Your task to perform on an android device: Open calendar and show me the third week of next month Image 0: 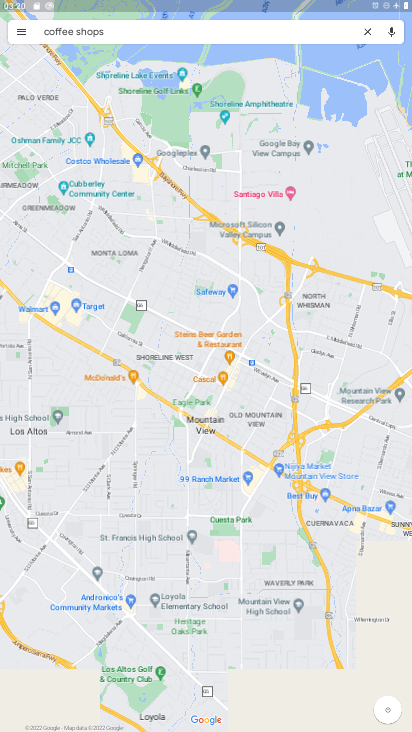
Step 0: press home button
Your task to perform on an android device: Open calendar and show me the third week of next month Image 1: 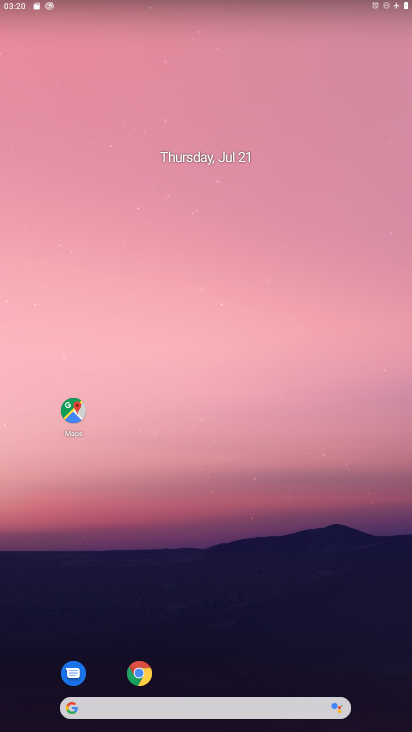
Step 1: drag from (241, 674) to (240, 240)
Your task to perform on an android device: Open calendar and show me the third week of next month Image 2: 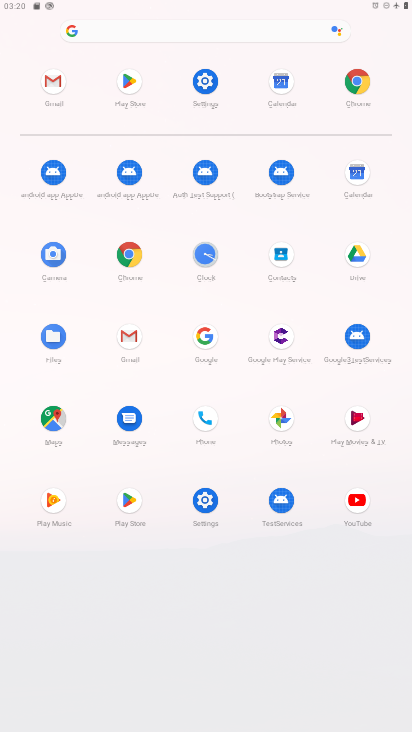
Step 2: click (351, 176)
Your task to perform on an android device: Open calendar and show me the third week of next month Image 3: 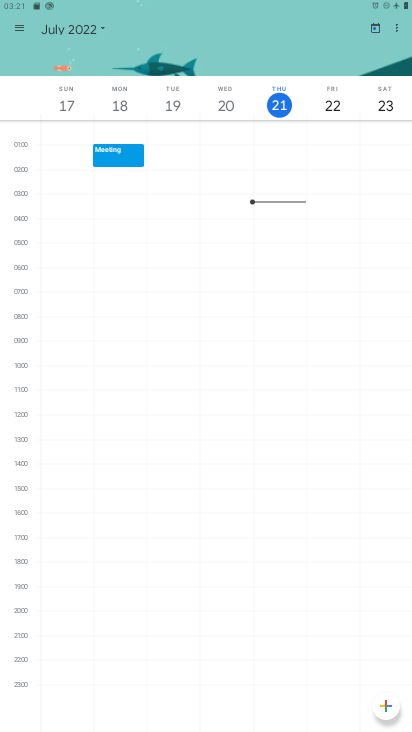
Step 3: click (19, 31)
Your task to perform on an android device: Open calendar and show me the third week of next month Image 4: 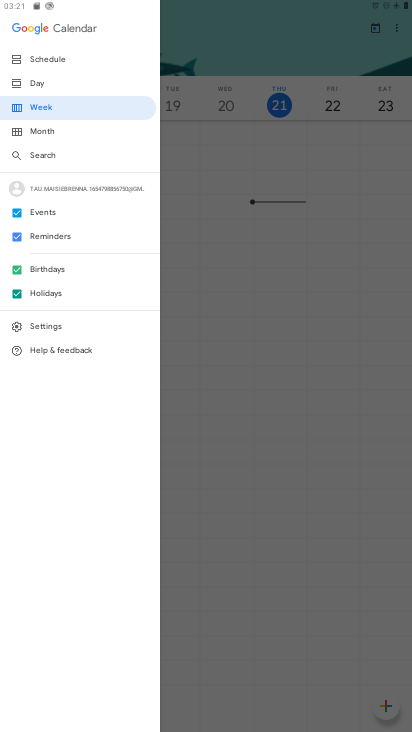
Step 4: click (64, 124)
Your task to perform on an android device: Open calendar and show me the third week of next month Image 5: 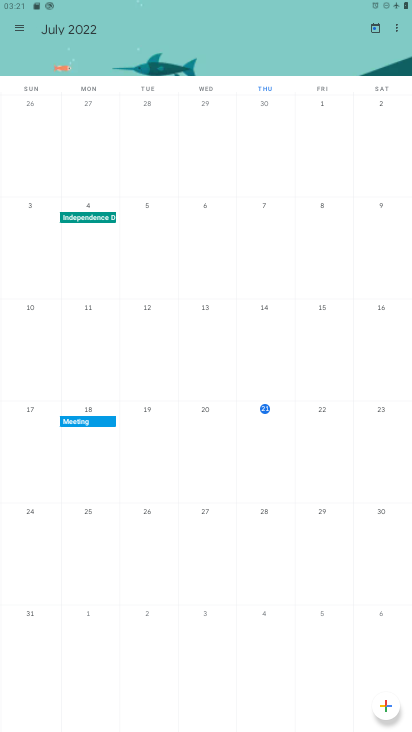
Step 5: drag from (323, 238) to (400, 275)
Your task to perform on an android device: Open calendar and show me the third week of next month Image 6: 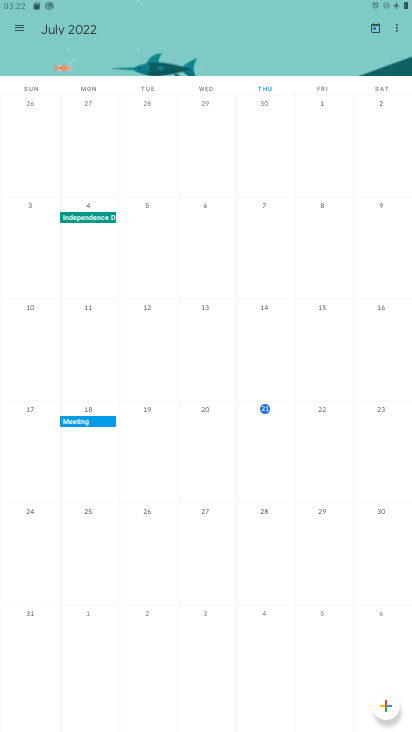
Step 6: click (14, 218)
Your task to perform on an android device: Open calendar and show me the third week of next month Image 7: 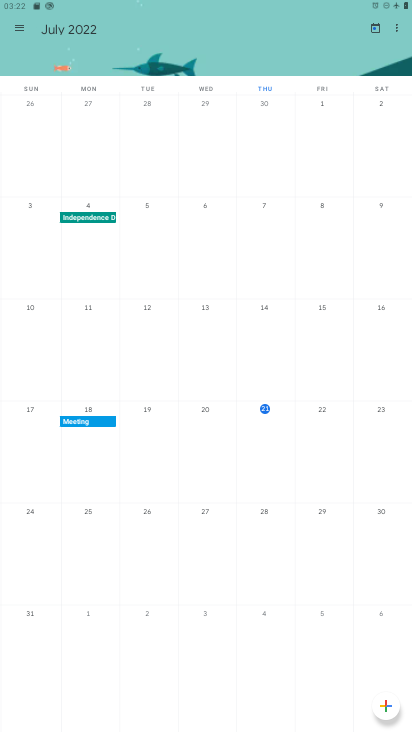
Step 7: task complete